Your task to perform on an android device: Go to sound settings Image 0: 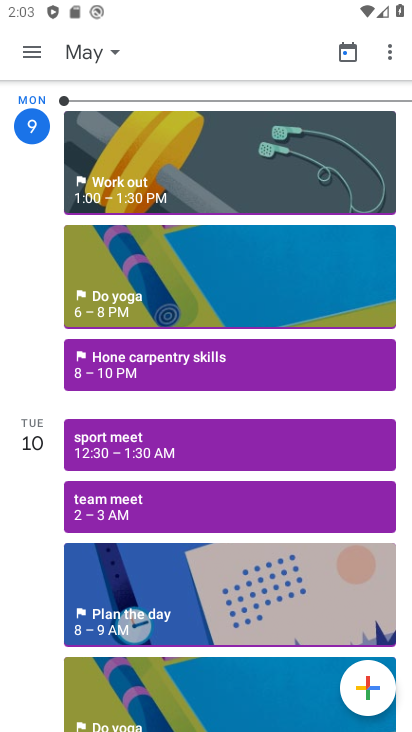
Step 0: press home button
Your task to perform on an android device: Go to sound settings Image 1: 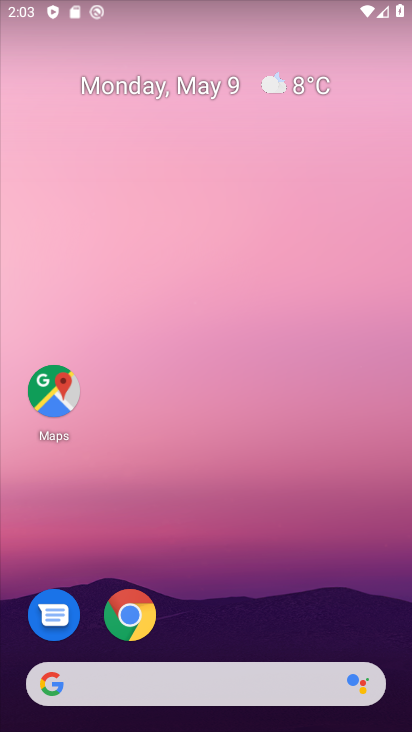
Step 1: drag from (212, 641) to (249, 195)
Your task to perform on an android device: Go to sound settings Image 2: 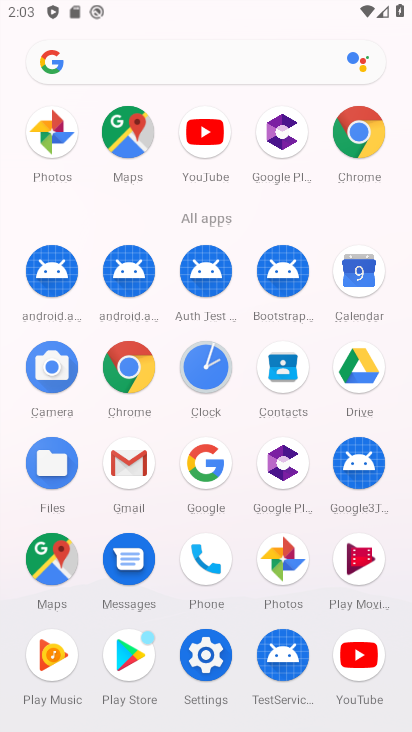
Step 2: click (217, 662)
Your task to perform on an android device: Go to sound settings Image 3: 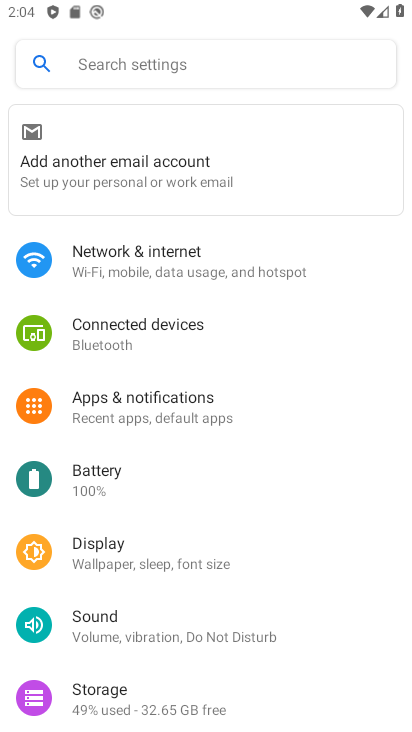
Step 3: click (179, 630)
Your task to perform on an android device: Go to sound settings Image 4: 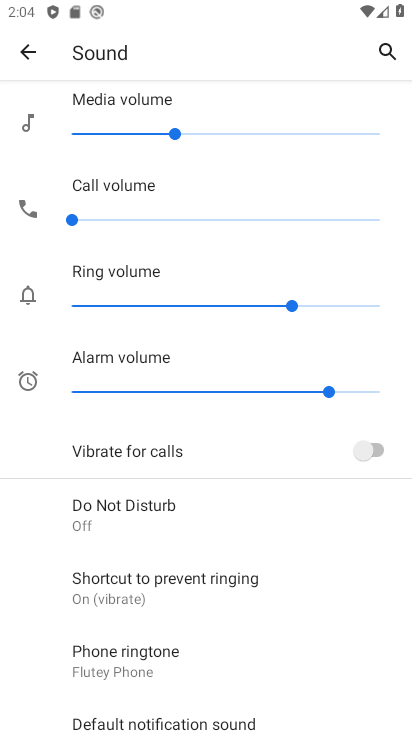
Step 4: task complete